Your task to perform on an android device: Open Maps and search for coffee Image 0: 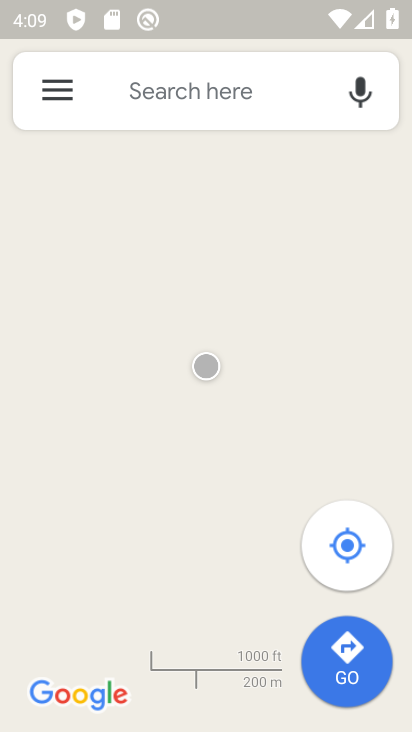
Step 0: press home button
Your task to perform on an android device: Open Maps and search for coffee Image 1: 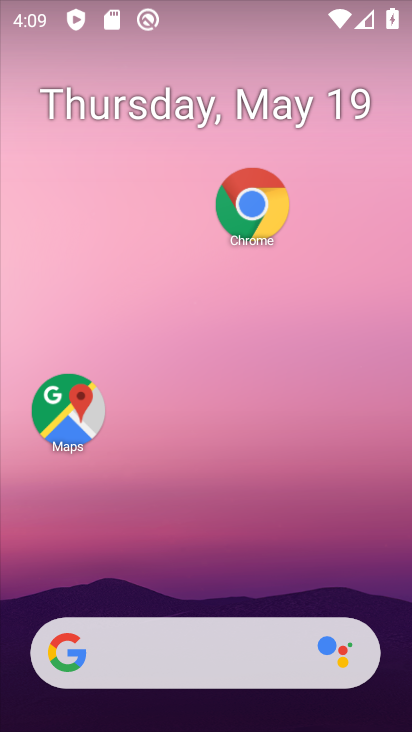
Step 1: drag from (131, 384) to (119, 176)
Your task to perform on an android device: Open Maps and search for coffee Image 2: 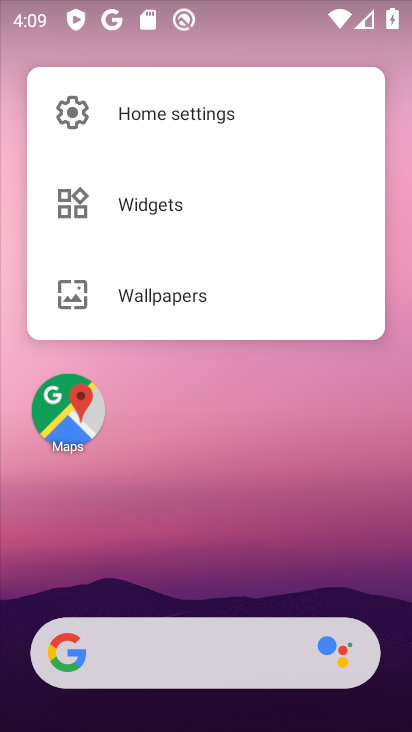
Step 2: click (189, 424)
Your task to perform on an android device: Open Maps and search for coffee Image 3: 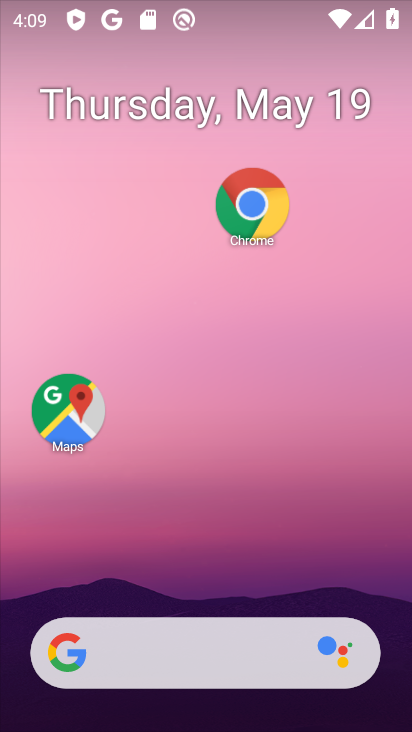
Step 3: click (57, 425)
Your task to perform on an android device: Open Maps and search for coffee Image 4: 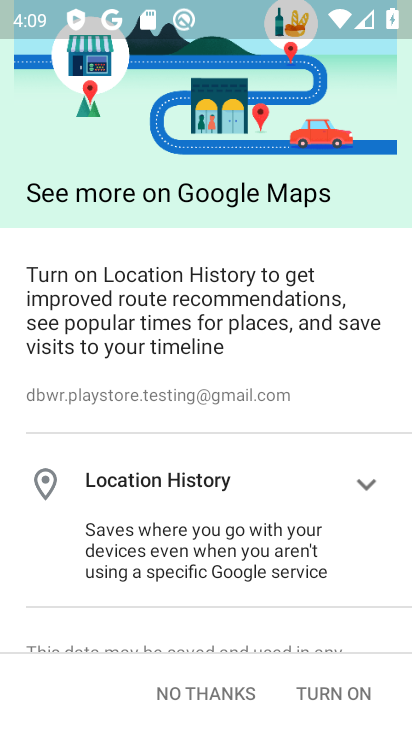
Step 4: click (327, 691)
Your task to perform on an android device: Open Maps and search for coffee Image 5: 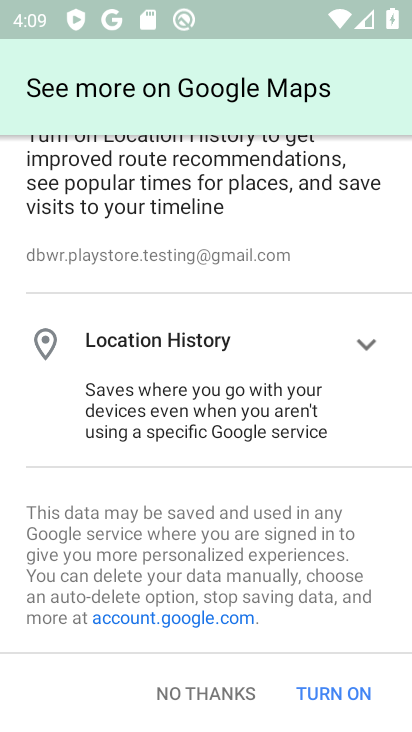
Step 5: click (329, 690)
Your task to perform on an android device: Open Maps and search for coffee Image 6: 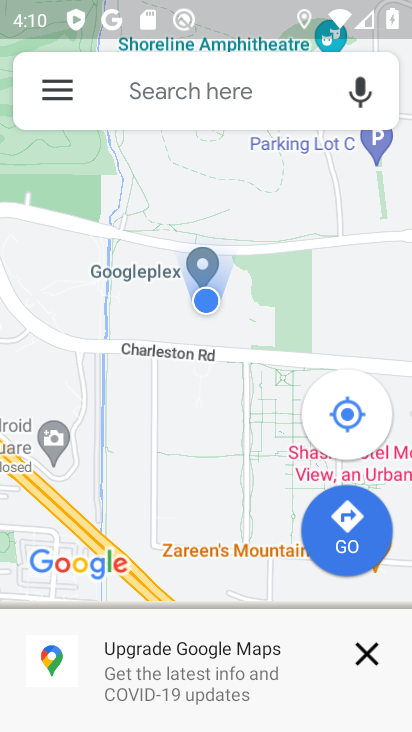
Step 6: click (363, 656)
Your task to perform on an android device: Open Maps and search for coffee Image 7: 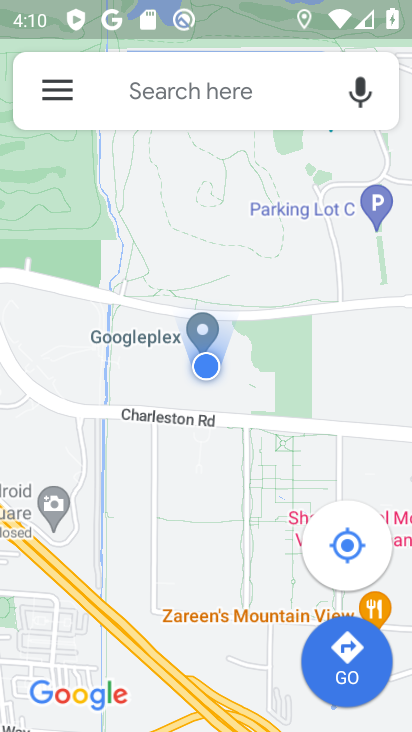
Step 7: click (167, 93)
Your task to perform on an android device: Open Maps and search for coffee Image 8: 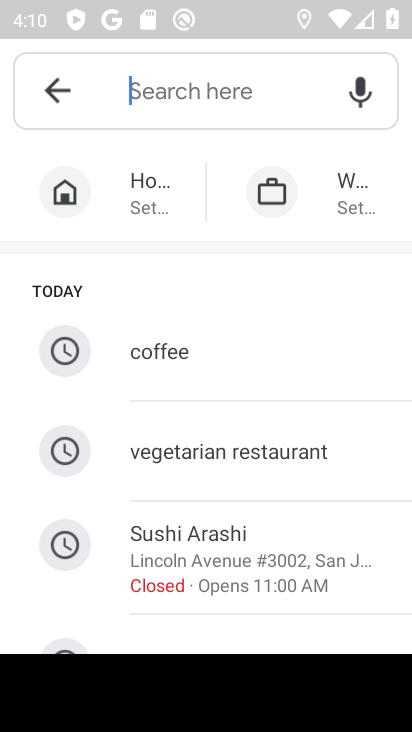
Step 8: click (159, 338)
Your task to perform on an android device: Open Maps and search for coffee Image 9: 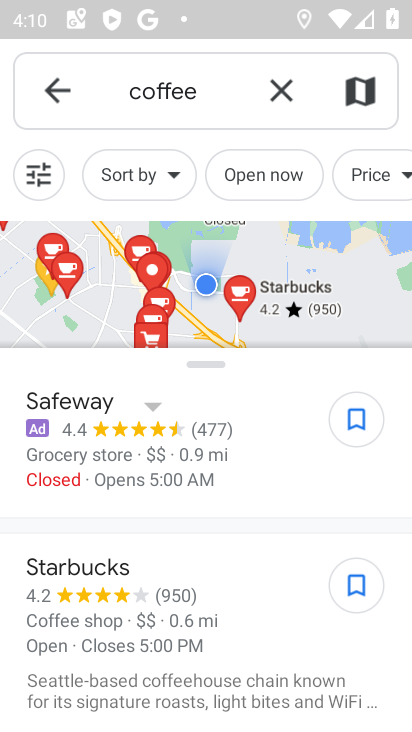
Step 9: task complete